Your task to perform on an android device: clear all cookies in the chrome app Image 0: 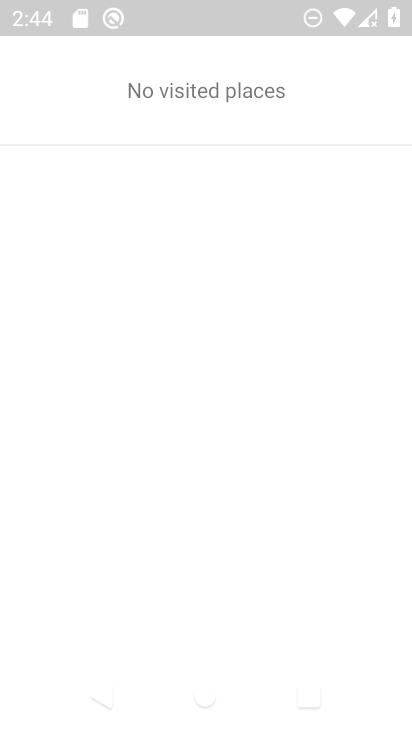
Step 0: press home button
Your task to perform on an android device: clear all cookies in the chrome app Image 1: 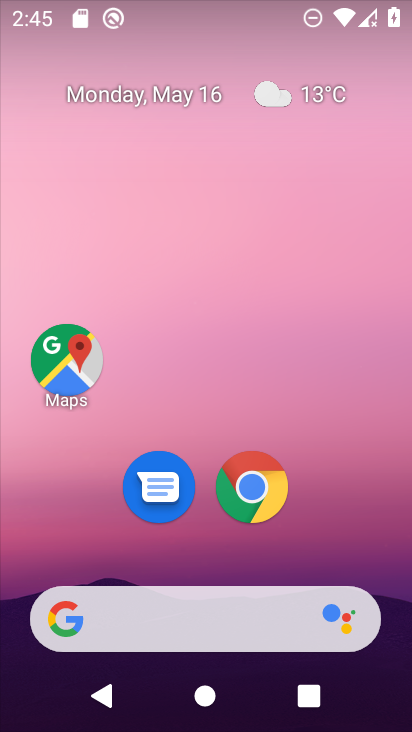
Step 1: click (238, 474)
Your task to perform on an android device: clear all cookies in the chrome app Image 2: 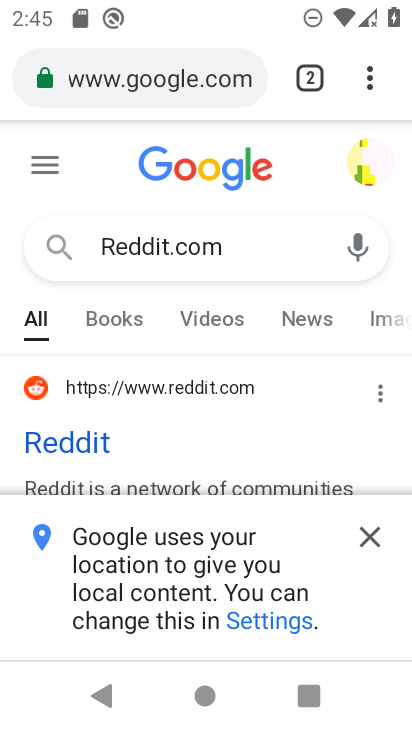
Step 2: click (369, 74)
Your task to perform on an android device: clear all cookies in the chrome app Image 3: 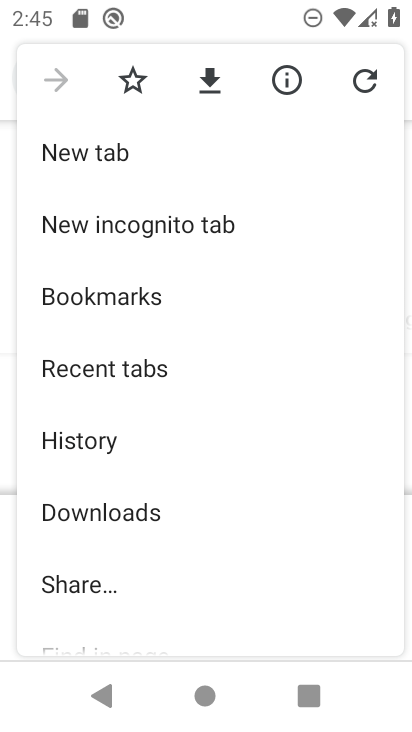
Step 3: click (70, 434)
Your task to perform on an android device: clear all cookies in the chrome app Image 4: 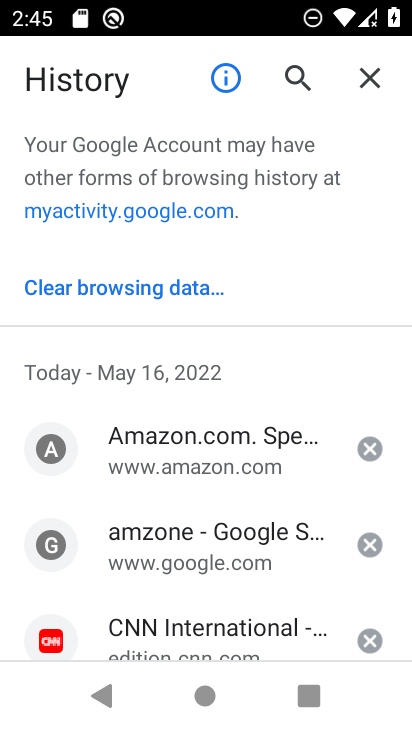
Step 4: click (170, 278)
Your task to perform on an android device: clear all cookies in the chrome app Image 5: 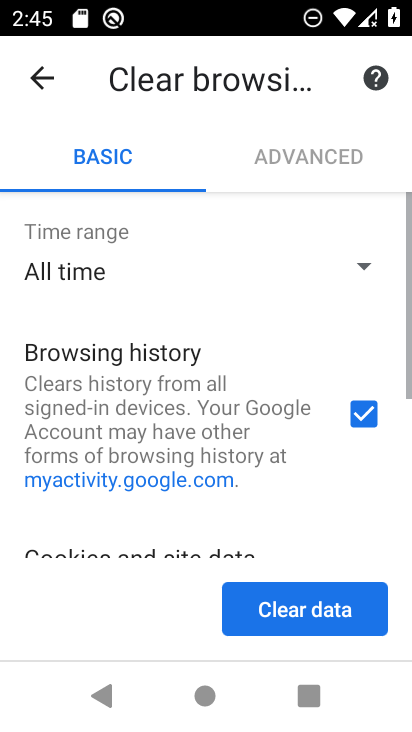
Step 5: click (271, 607)
Your task to perform on an android device: clear all cookies in the chrome app Image 6: 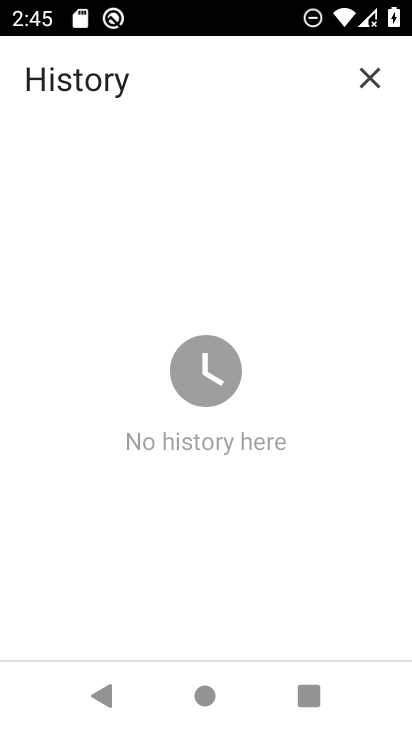
Step 6: task complete